Your task to perform on an android device: turn on sleep mode Image 0: 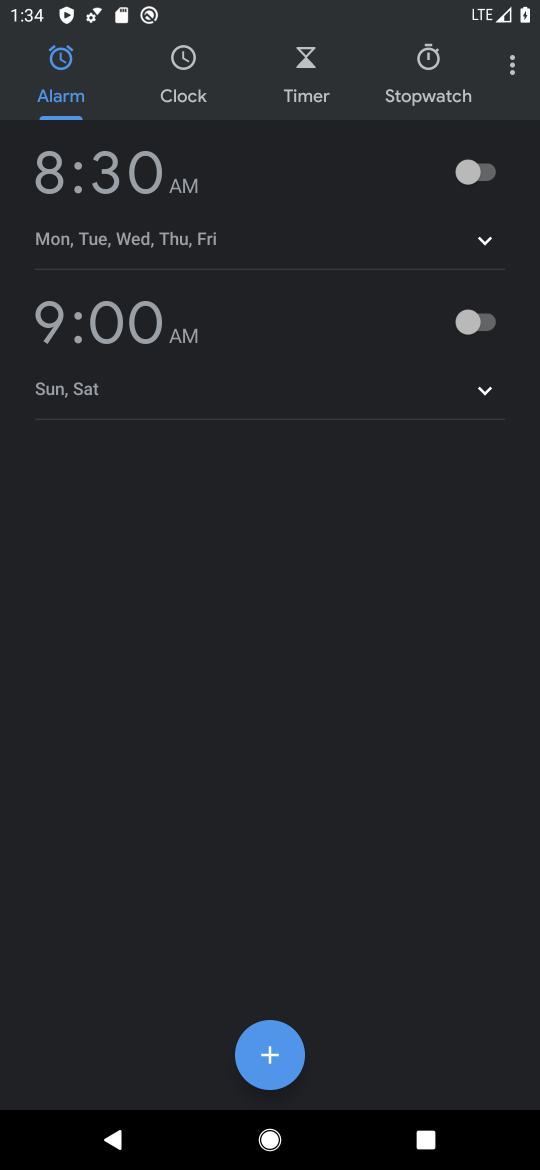
Step 0: drag from (222, 15) to (196, 1083)
Your task to perform on an android device: turn on sleep mode Image 1: 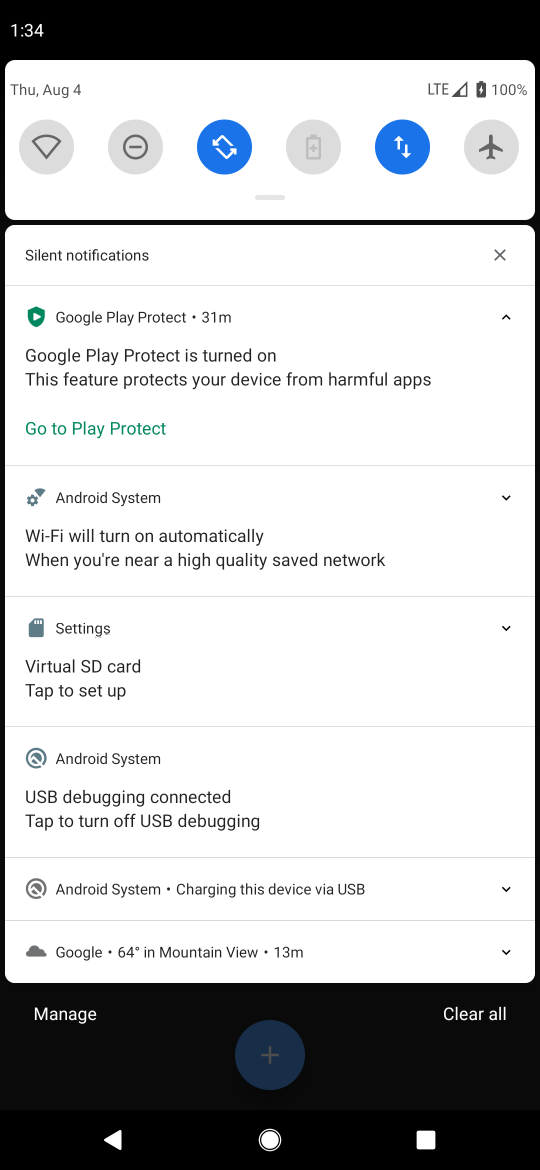
Step 1: drag from (273, 199) to (223, 774)
Your task to perform on an android device: turn on sleep mode Image 2: 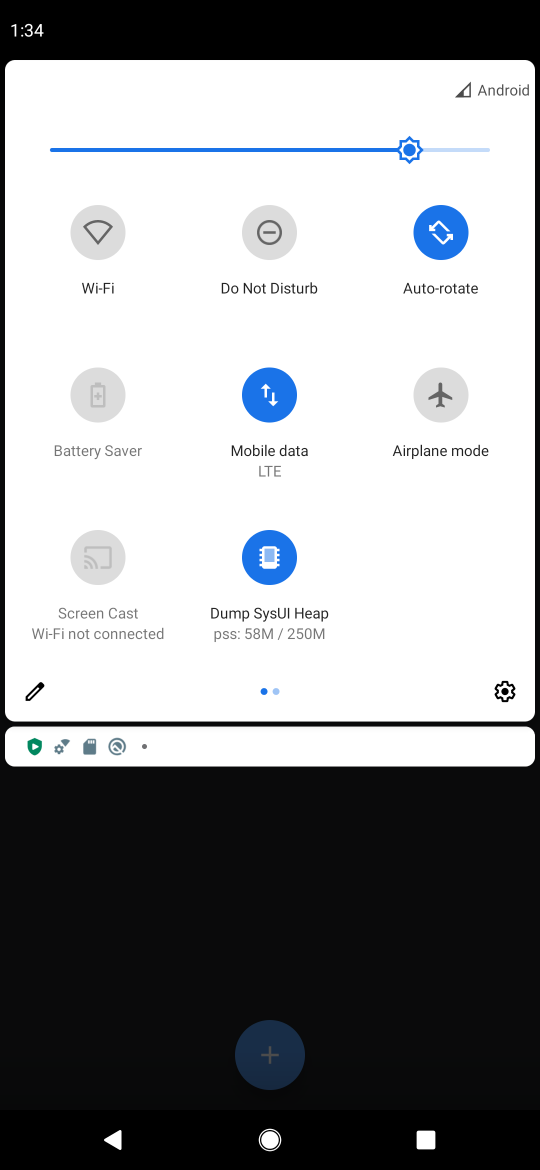
Step 2: click (263, 230)
Your task to perform on an android device: turn on sleep mode Image 3: 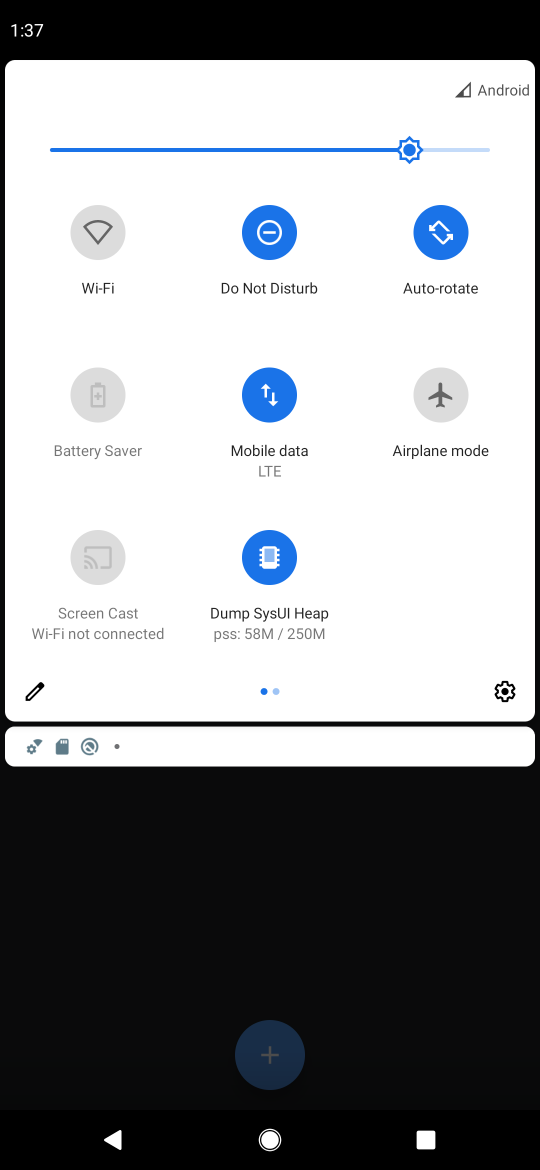
Step 3: task complete